Your task to perform on an android device: turn off location Image 0: 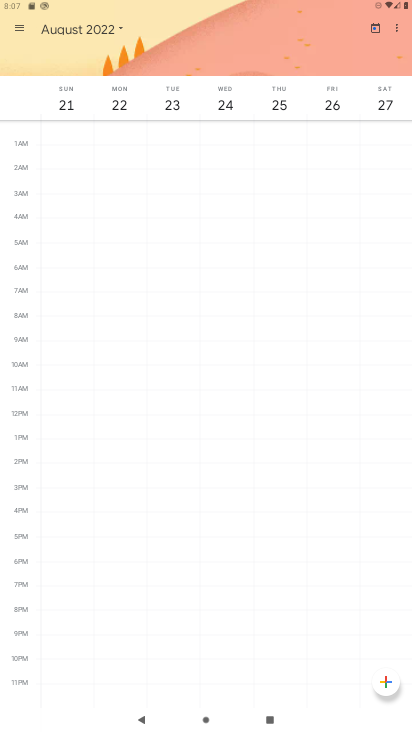
Step 0: press home button
Your task to perform on an android device: turn off location Image 1: 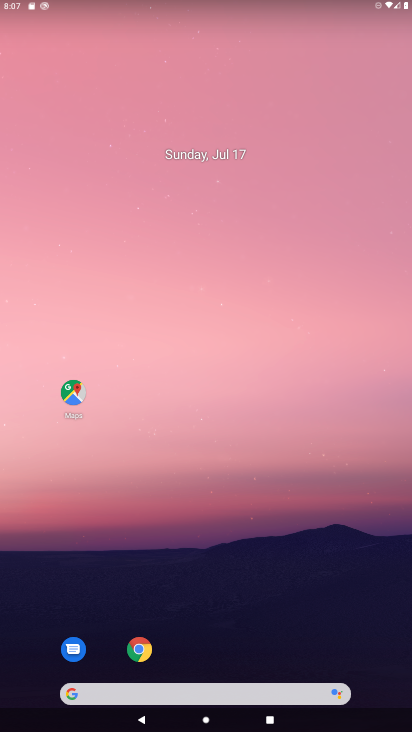
Step 1: drag from (221, 668) to (176, 5)
Your task to perform on an android device: turn off location Image 2: 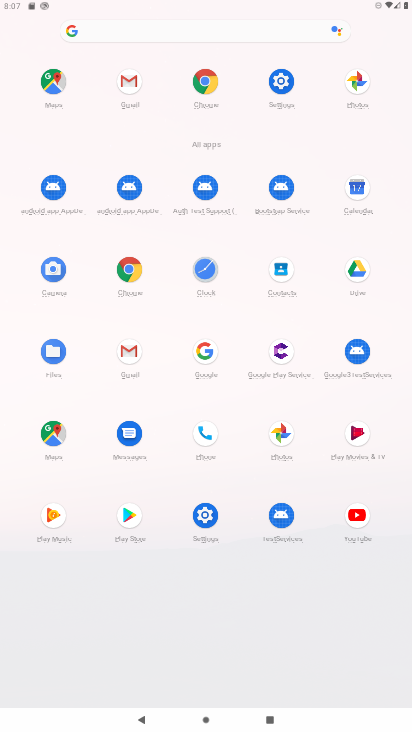
Step 2: click (274, 106)
Your task to perform on an android device: turn off location Image 3: 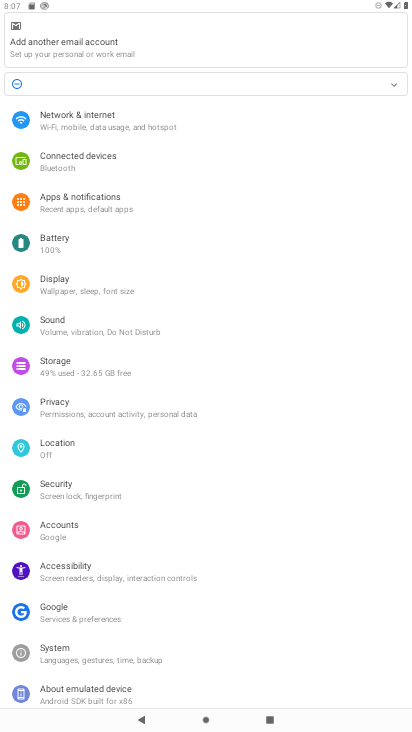
Step 3: click (71, 438)
Your task to perform on an android device: turn off location Image 4: 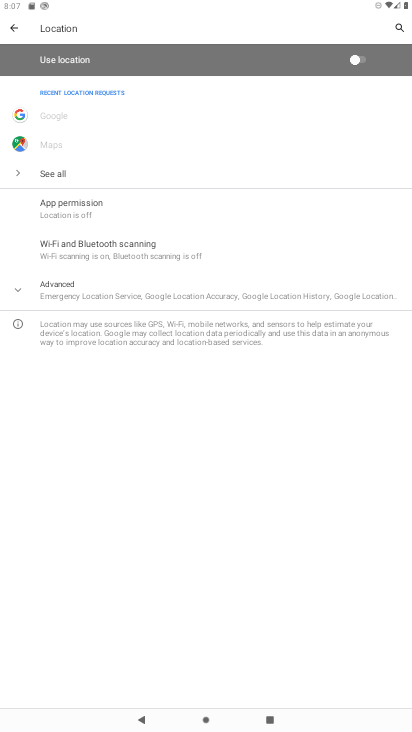
Step 4: task complete